Your task to perform on an android device: What's the weather going to be this weekend? Image 0: 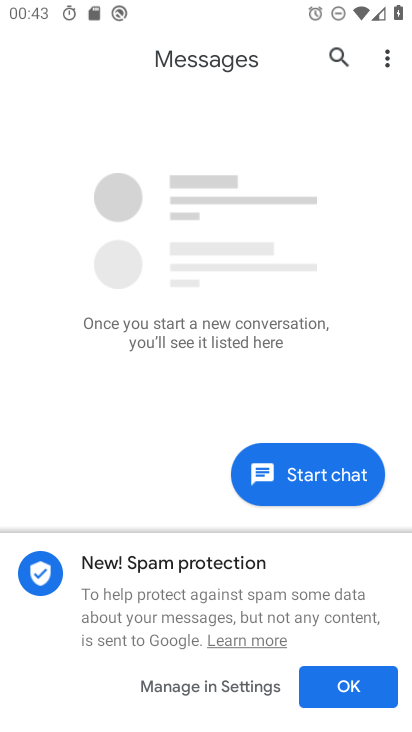
Step 0: press home button
Your task to perform on an android device: What's the weather going to be this weekend? Image 1: 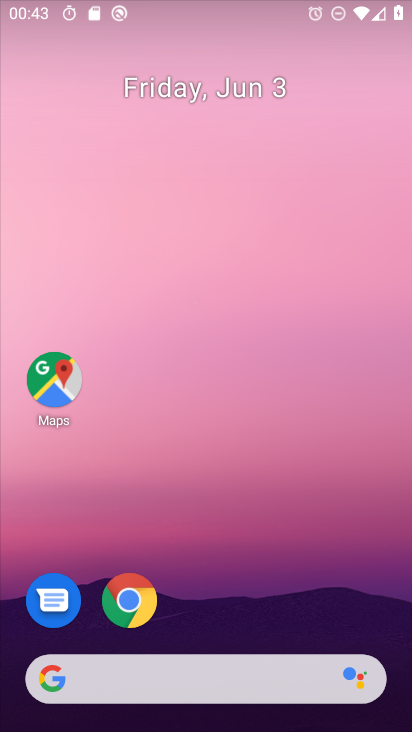
Step 1: drag from (200, 559) to (184, 81)
Your task to perform on an android device: What's the weather going to be this weekend? Image 2: 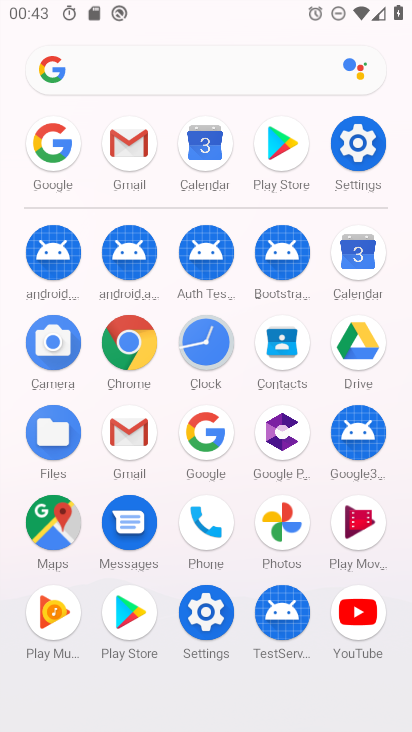
Step 2: click (204, 445)
Your task to perform on an android device: What's the weather going to be this weekend? Image 3: 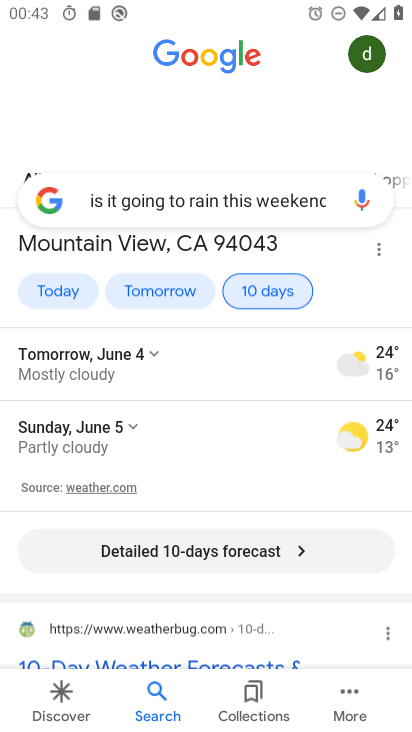
Step 3: click (282, 204)
Your task to perform on an android device: What's the weather going to be this weekend? Image 4: 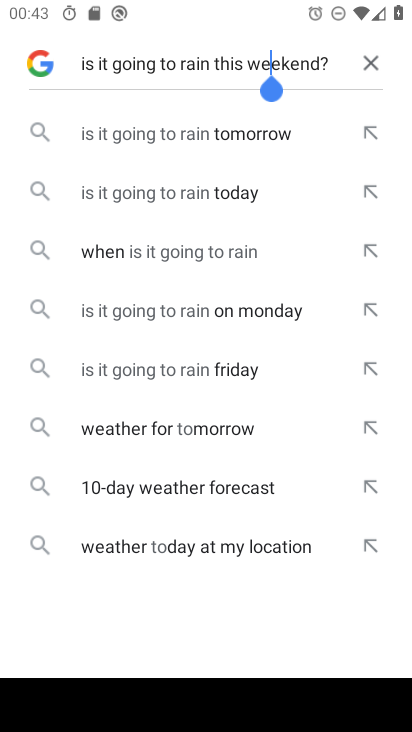
Step 4: click (373, 59)
Your task to perform on an android device: What's the weather going to be this weekend? Image 5: 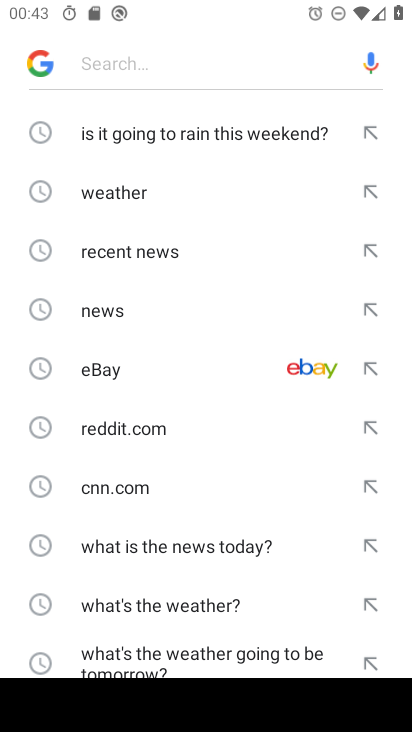
Step 5: drag from (207, 556) to (218, 111)
Your task to perform on an android device: What's the weather going to be this weekend? Image 6: 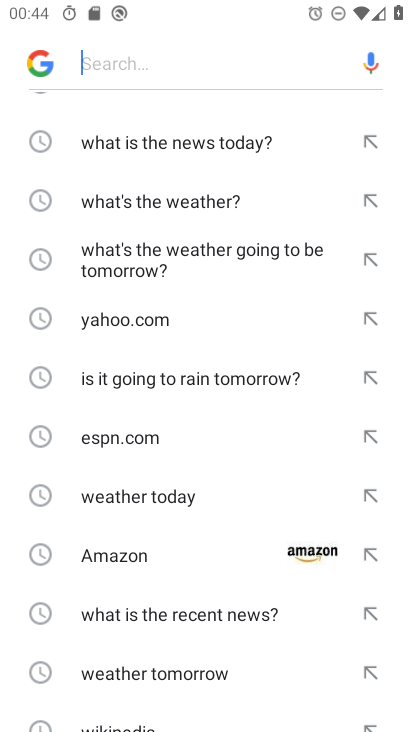
Step 6: drag from (219, 601) to (223, 365)
Your task to perform on an android device: What's the weather going to be this weekend? Image 7: 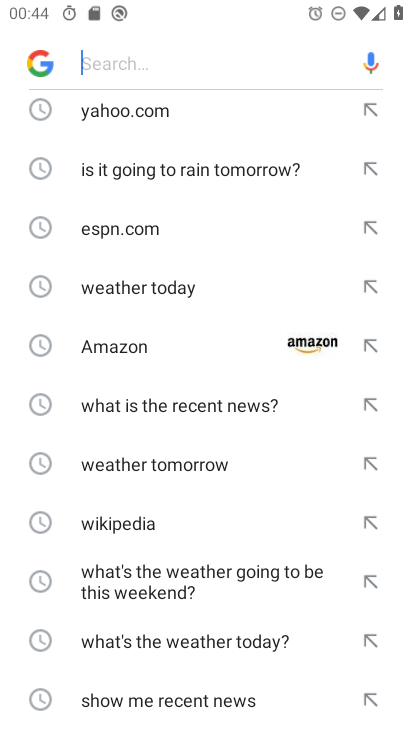
Step 7: click (193, 581)
Your task to perform on an android device: What's the weather going to be this weekend? Image 8: 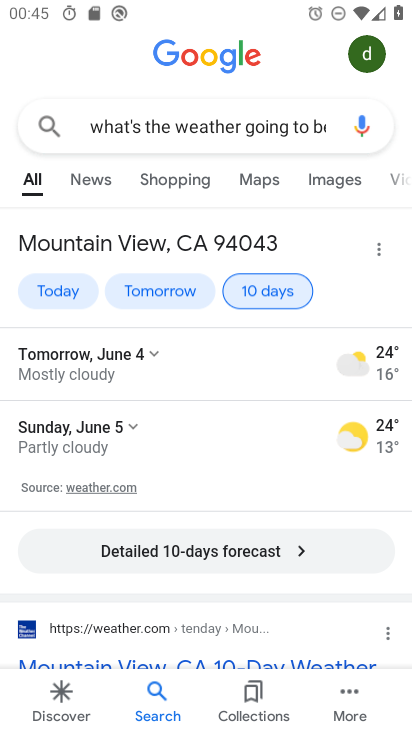
Step 8: task complete